Your task to perform on an android device: search for starred emails in the gmail app Image 0: 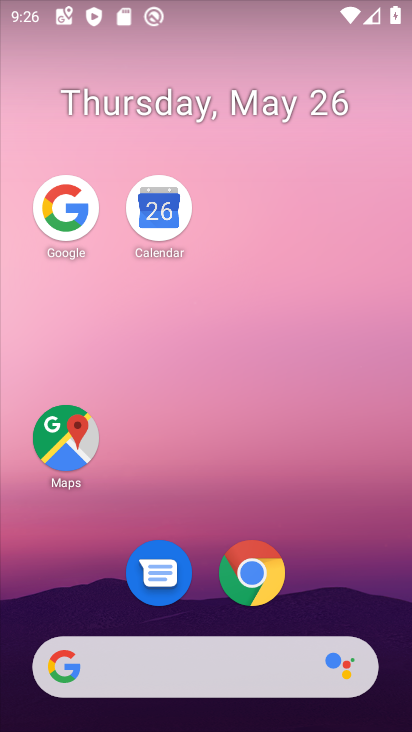
Step 0: drag from (364, 458) to (359, 197)
Your task to perform on an android device: search for starred emails in the gmail app Image 1: 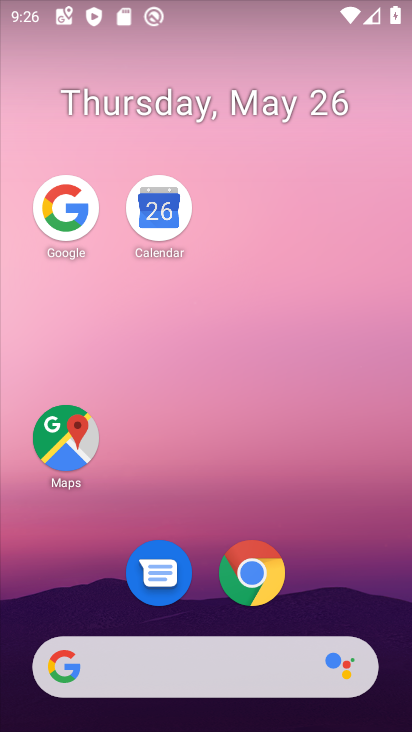
Step 1: drag from (353, 614) to (333, 151)
Your task to perform on an android device: search for starred emails in the gmail app Image 2: 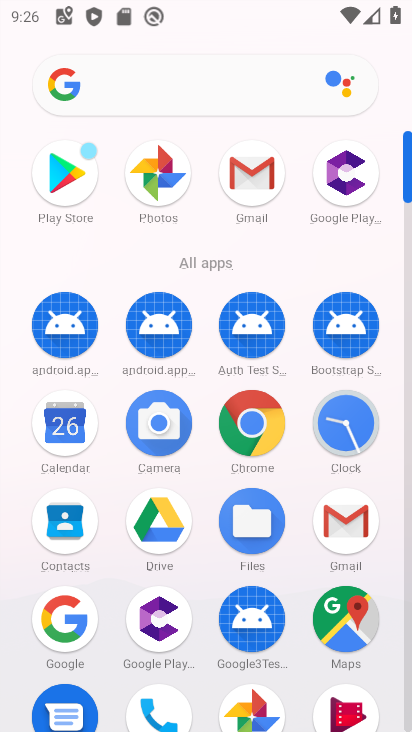
Step 2: drag from (265, 171) to (108, 330)
Your task to perform on an android device: search for starred emails in the gmail app Image 3: 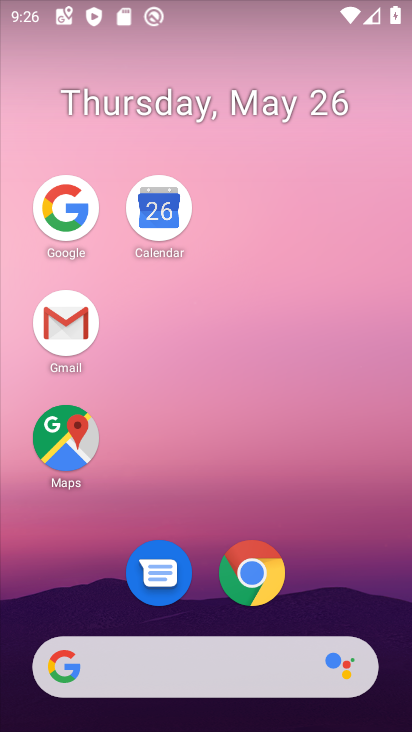
Step 3: click (92, 316)
Your task to perform on an android device: search for starred emails in the gmail app Image 4: 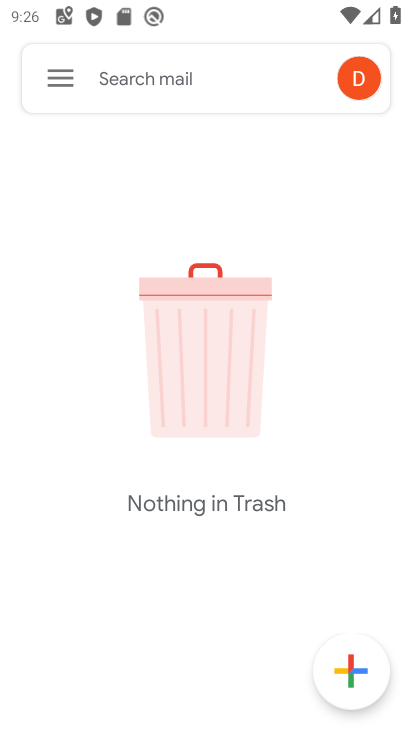
Step 4: click (62, 72)
Your task to perform on an android device: search for starred emails in the gmail app Image 5: 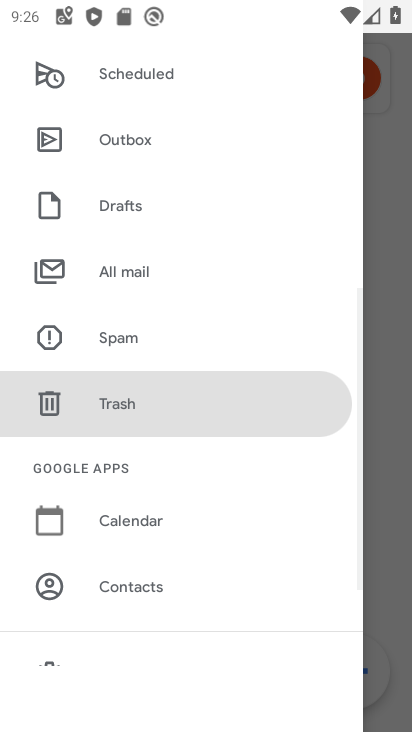
Step 5: drag from (221, 221) to (240, 600)
Your task to perform on an android device: search for starred emails in the gmail app Image 6: 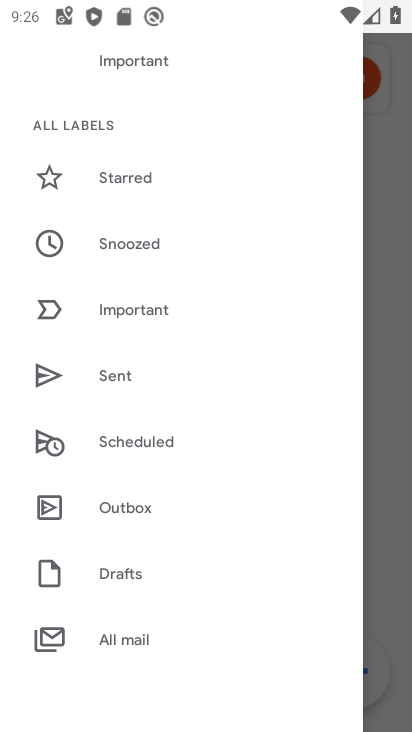
Step 6: click (153, 178)
Your task to perform on an android device: search for starred emails in the gmail app Image 7: 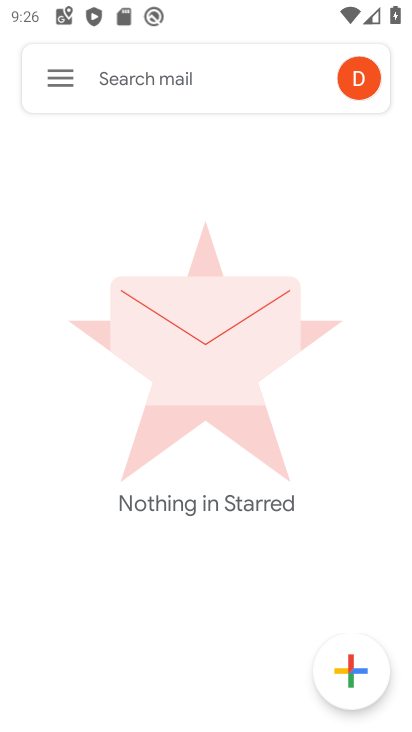
Step 7: task complete